Your task to perform on an android device: Play the last video I watched on Youtube Image 0: 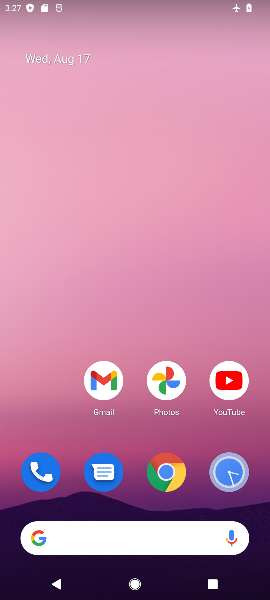
Step 0: click (222, 401)
Your task to perform on an android device: Play the last video I watched on Youtube Image 1: 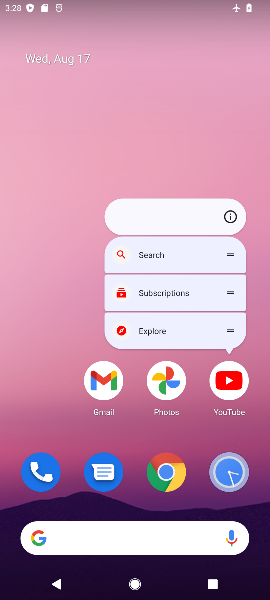
Step 1: click (231, 383)
Your task to perform on an android device: Play the last video I watched on Youtube Image 2: 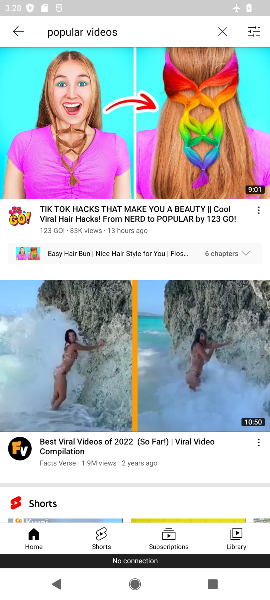
Step 2: click (231, 536)
Your task to perform on an android device: Play the last video I watched on Youtube Image 3: 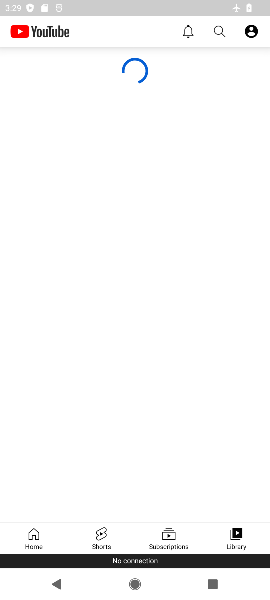
Step 3: task complete